Your task to perform on an android device: What is the recent news? Image 0: 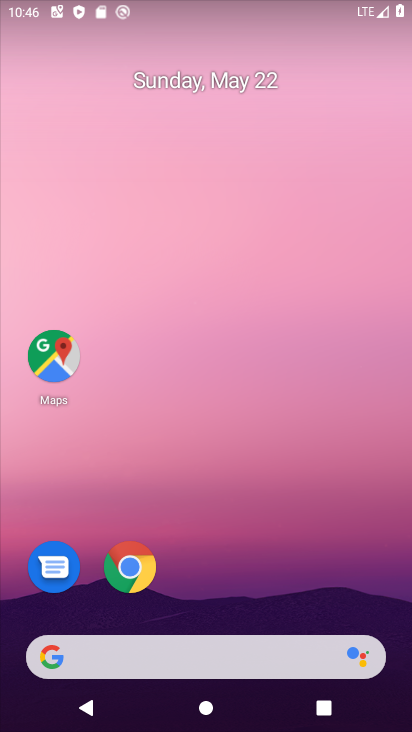
Step 0: drag from (240, 491) to (219, 1)
Your task to perform on an android device: What is the recent news? Image 1: 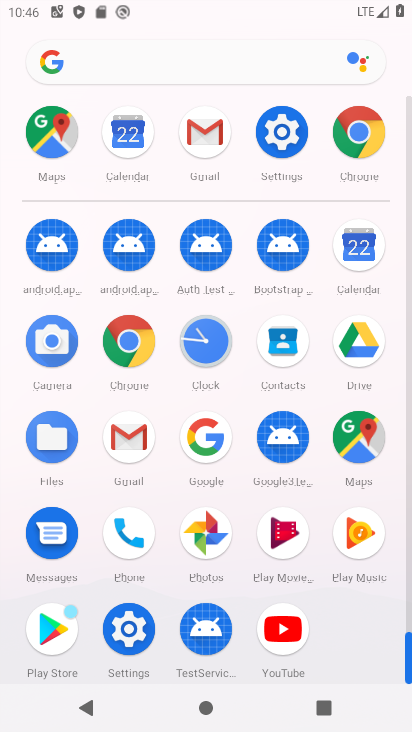
Step 1: drag from (14, 514) to (12, 245)
Your task to perform on an android device: What is the recent news? Image 2: 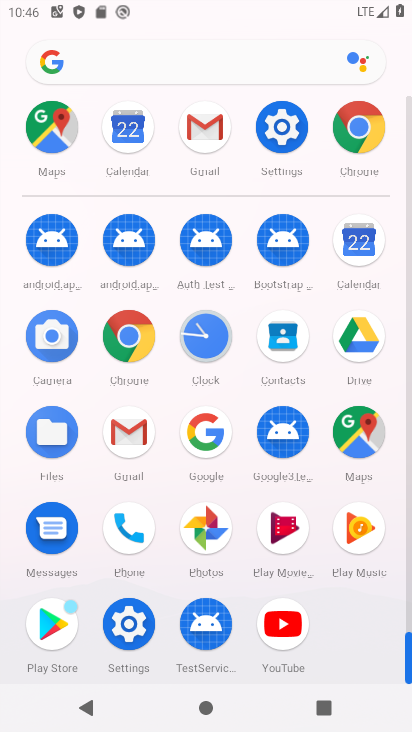
Step 2: click (131, 332)
Your task to perform on an android device: What is the recent news? Image 3: 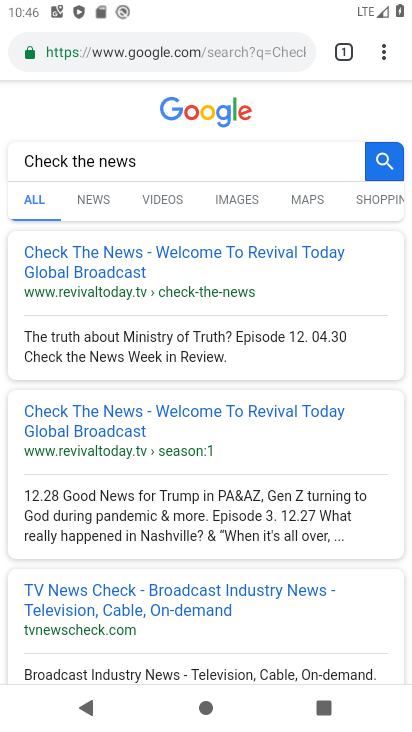
Step 3: click (104, 194)
Your task to perform on an android device: What is the recent news? Image 4: 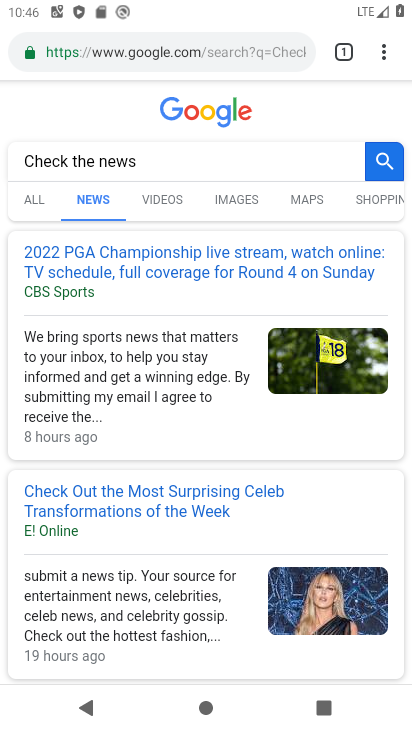
Step 4: task complete